Your task to perform on an android device: Go to settings Image 0: 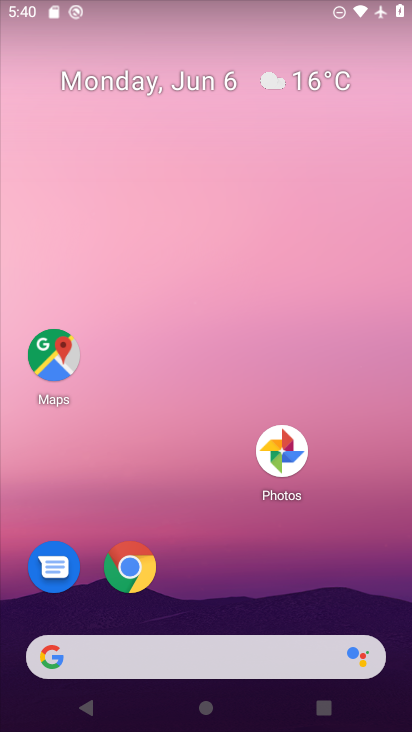
Step 0: drag from (203, 689) to (109, 48)
Your task to perform on an android device: Go to settings Image 1: 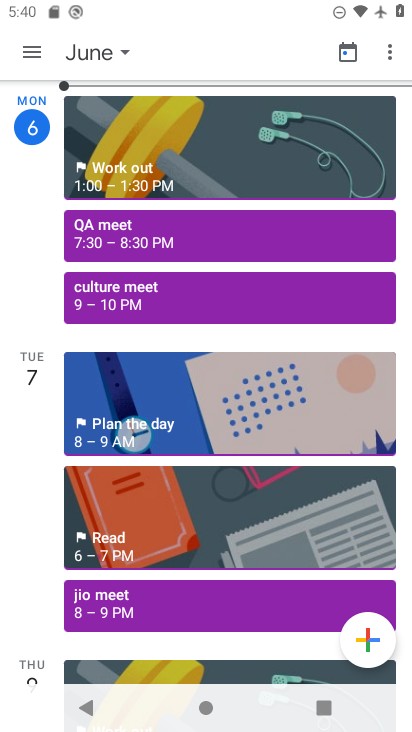
Step 1: press back button
Your task to perform on an android device: Go to settings Image 2: 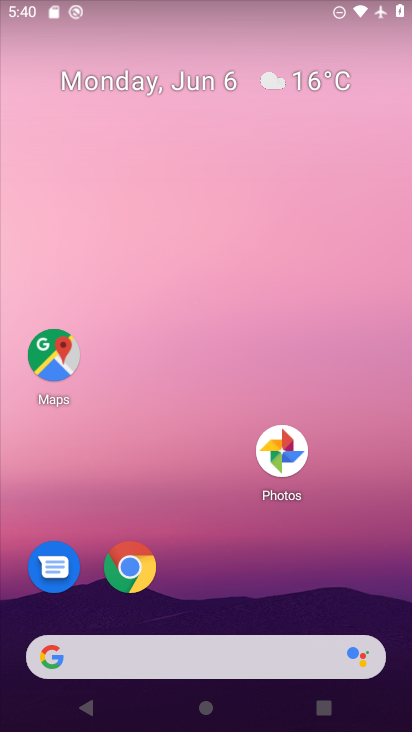
Step 2: drag from (268, 665) to (135, 85)
Your task to perform on an android device: Go to settings Image 3: 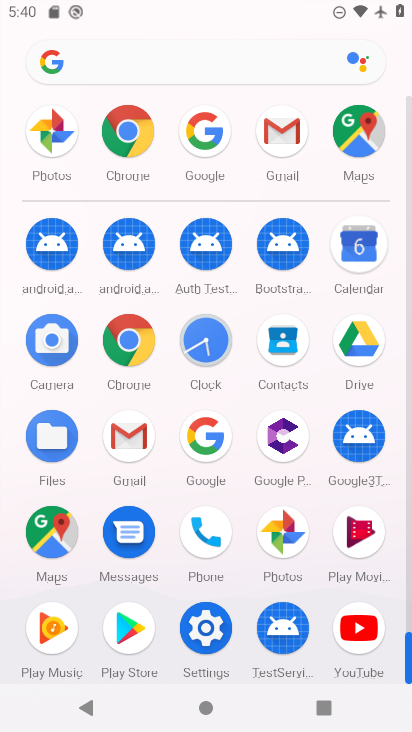
Step 3: click (190, 632)
Your task to perform on an android device: Go to settings Image 4: 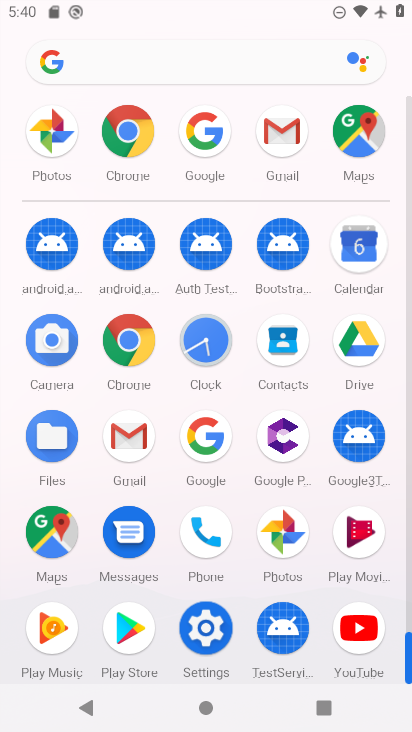
Step 4: click (196, 634)
Your task to perform on an android device: Go to settings Image 5: 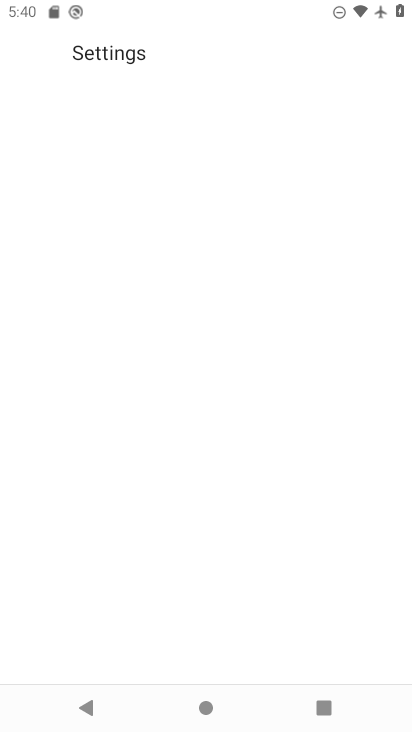
Step 5: click (200, 637)
Your task to perform on an android device: Go to settings Image 6: 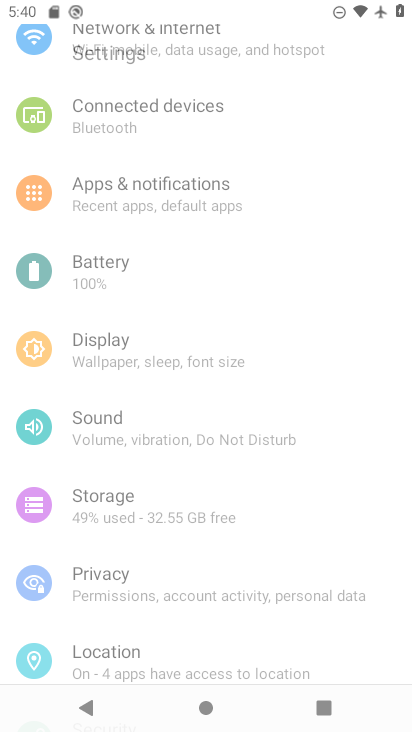
Step 6: click (201, 637)
Your task to perform on an android device: Go to settings Image 7: 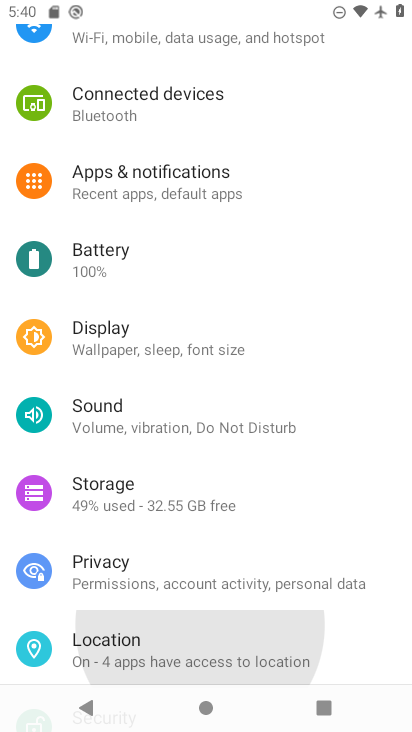
Step 7: click (202, 635)
Your task to perform on an android device: Go to settings Image 8: 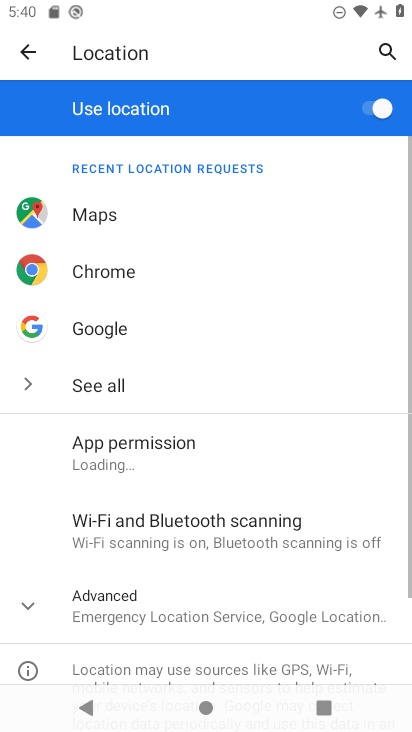
Step 8: task complete